Your task to perform on an android device: toggle notification dots Image 0: 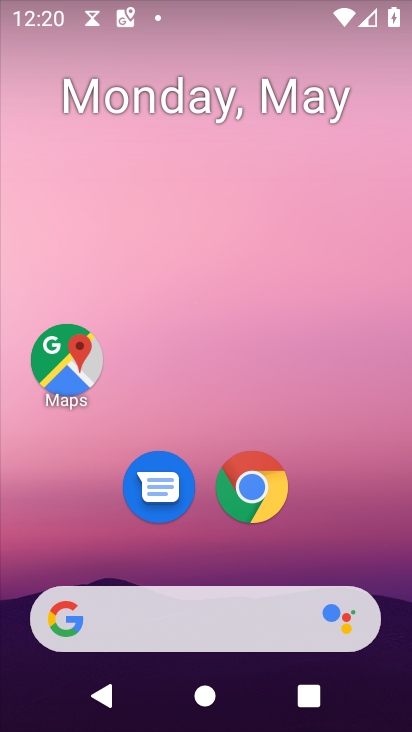
Step 0: drag from (187, 560) to (265, 64)
Your task to perform on an android device: toggle notification dots Image 1: 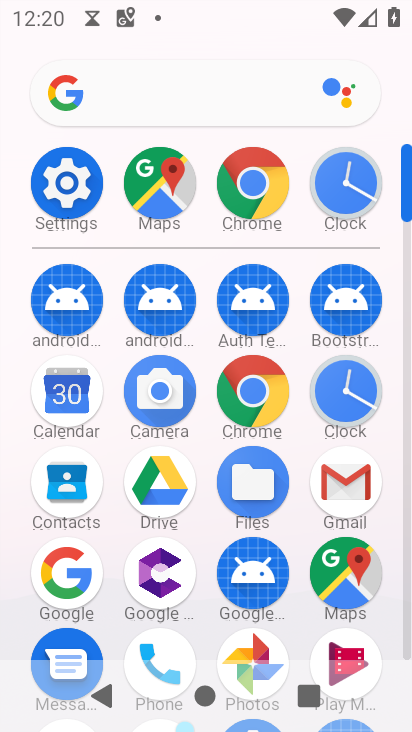
Step 1: click (56, 172)
Your task to perform on an android device: toggle notification dots Image 2: 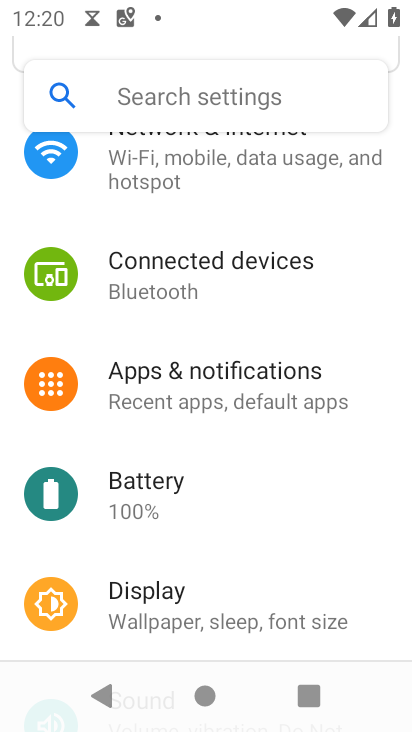
Step 2: click (208, 386)
Your task to perform on an android device: toggle notification dots Image 3: 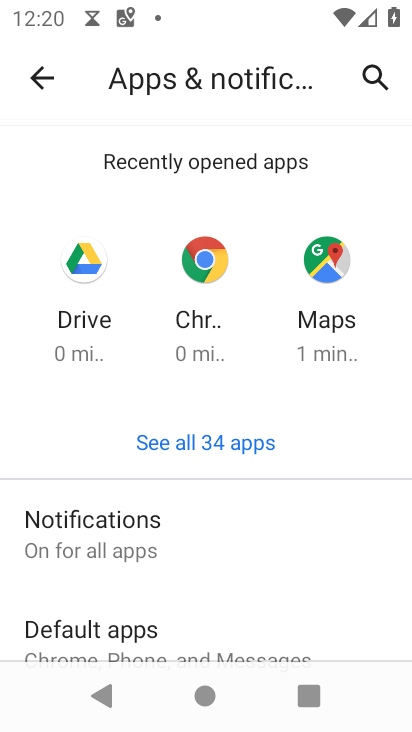
Step 3: click (219, 540)
Your task to perform on an android device: toggle notification dots Image 4: 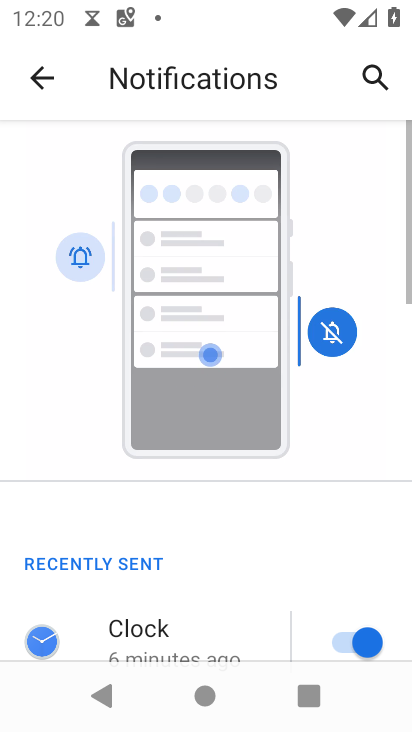
Step 4: drag from (219, 606) to (180, 205)
Your task to perform on an android device: toggle notification dots Image 5: 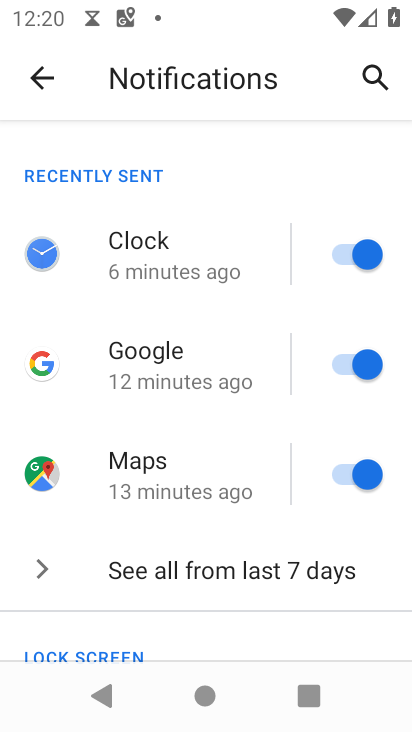
Step 5: drag from (187, 528) to (231, 225)
Your task to perform on an android device: toggle notification dots Image 6: 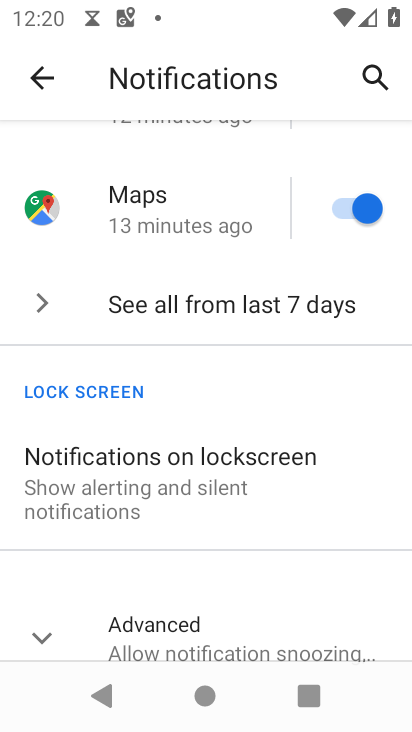
Step 6: click (194, 619)
Your task to perform on an android device: toggle notification dots Image 7: 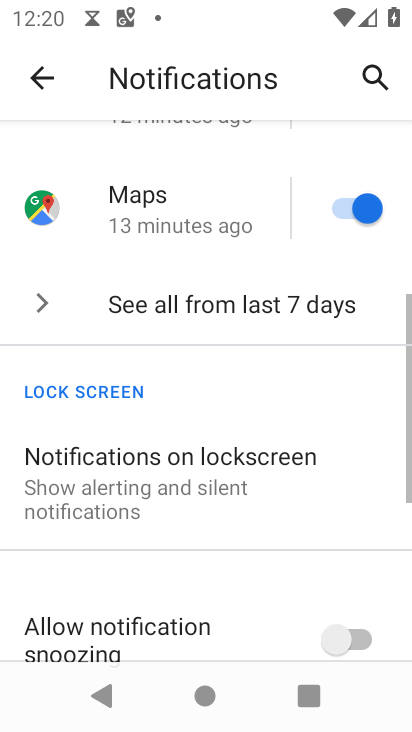
Step 7: drag from (197, 618) to (235, 132)
Your task to perform on an android device: toggle notification dots Image 8: 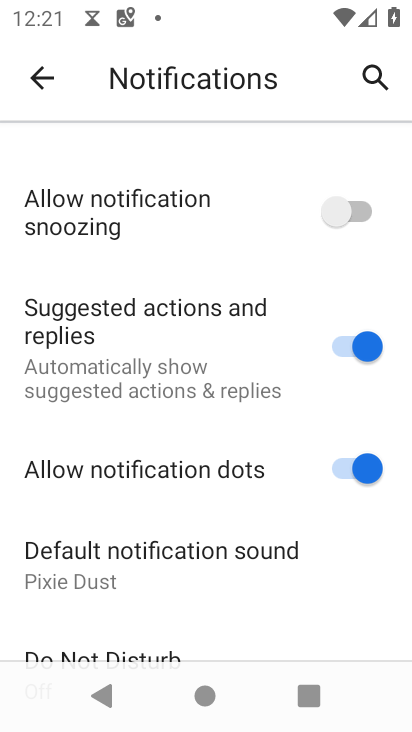
Step 8: click (349, 453)
Your task to perform on an android device: toggle notification dots Image 9: 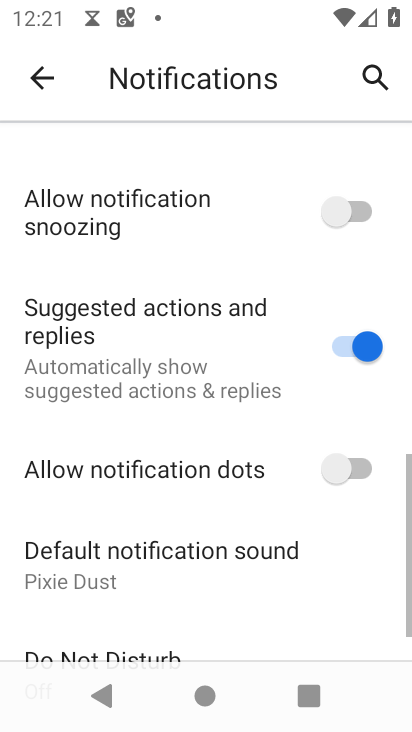
Step 9: task complete